Your task to perform on an android device: What's the weather? Image 0: 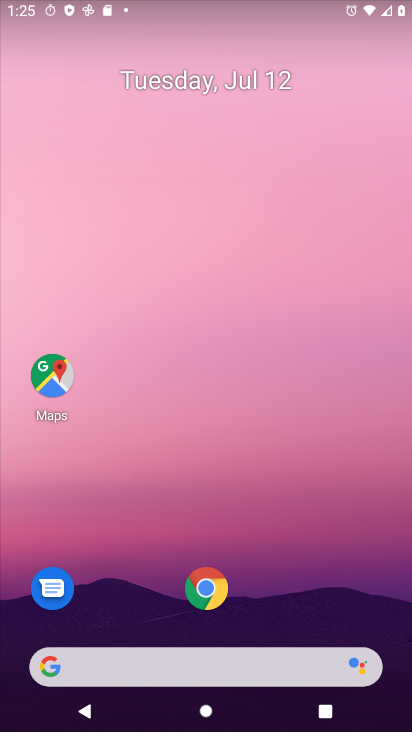
Step 0: click (232, 670)
Your task to perform on an android device: What's the weather? Image 1: 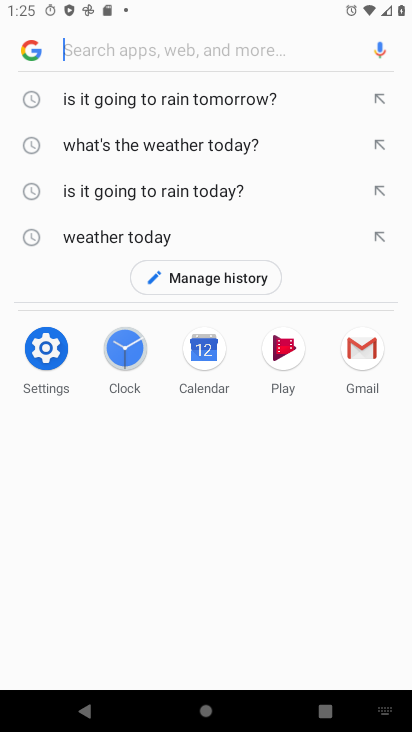
Step 1: click (128, 229)
Your task to perform on an android device: What's the weather? Image 2: 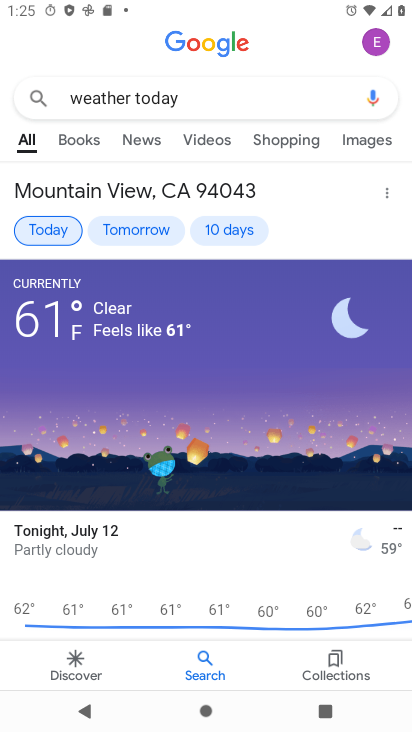
Step 2: task complete